Your task to perform on an android device: Empty the shopping cart on newegg. Add "duracell triple a" to the cart on newegg Image 0: 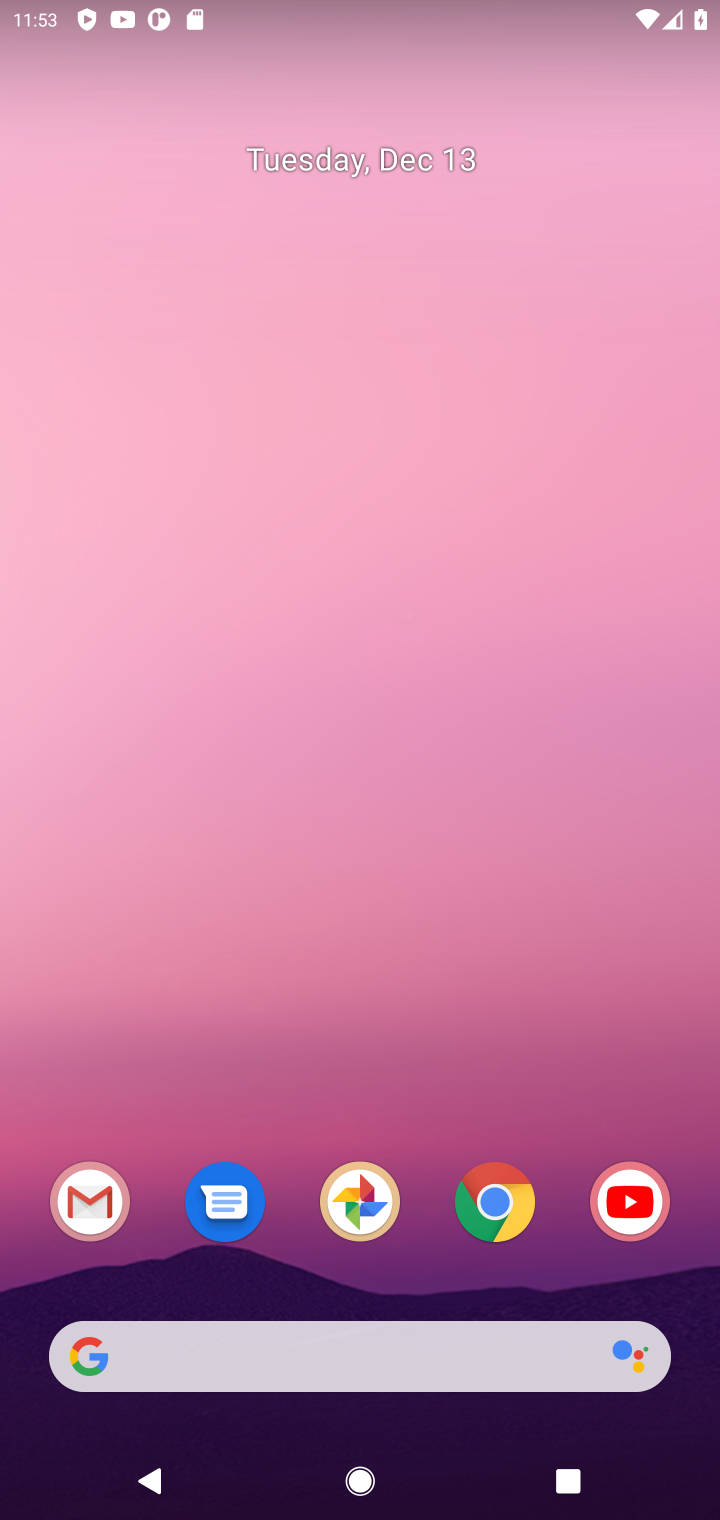
Step 0: click (507, 1196)
Your task to perform on an android device: Empty the shopping cart on newegg. Add "duracell triple a" to the cart on newegg Image 1: 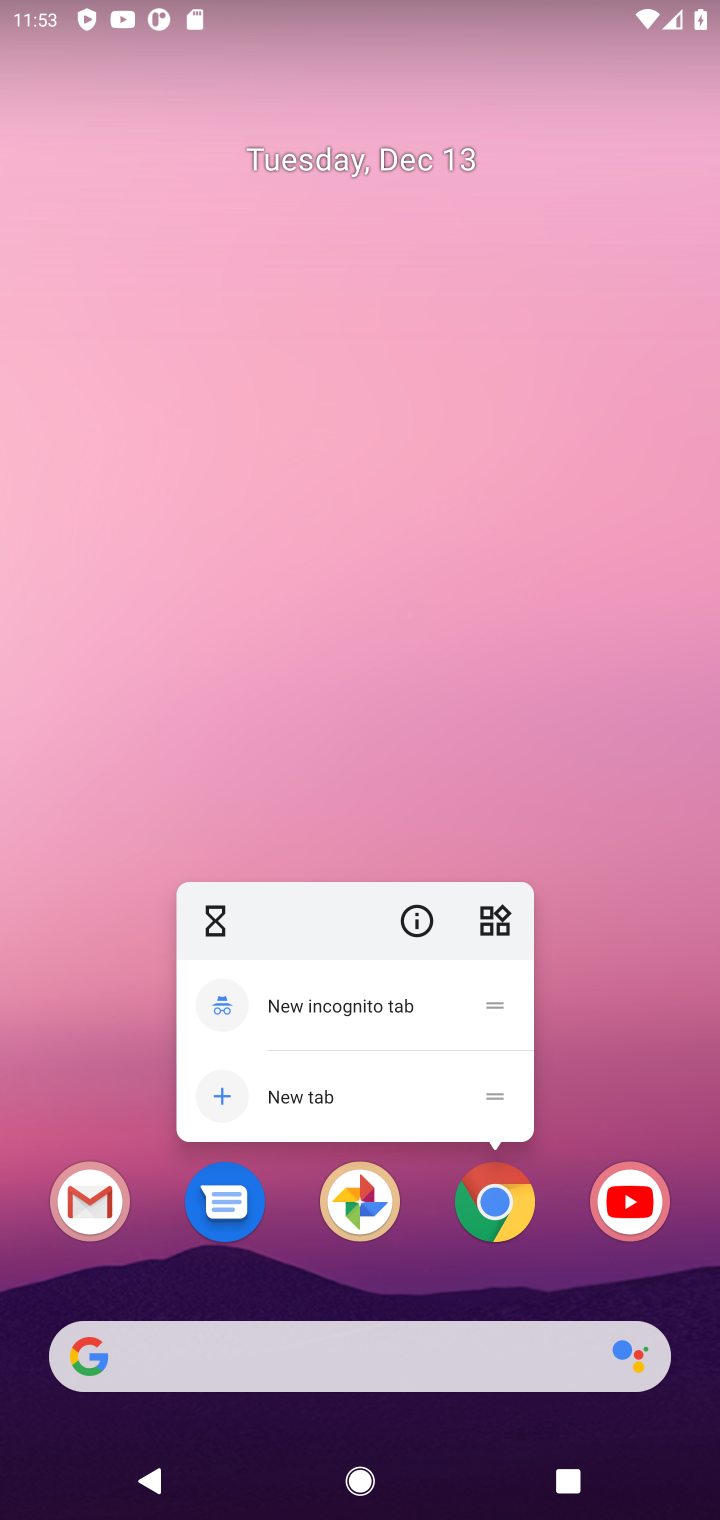
Step 1: click (492, 1193)
Your task to perform on an android device: Empty the shopping cart on newegg. Add "duracell triple a" to the cart on newegg Image 2: 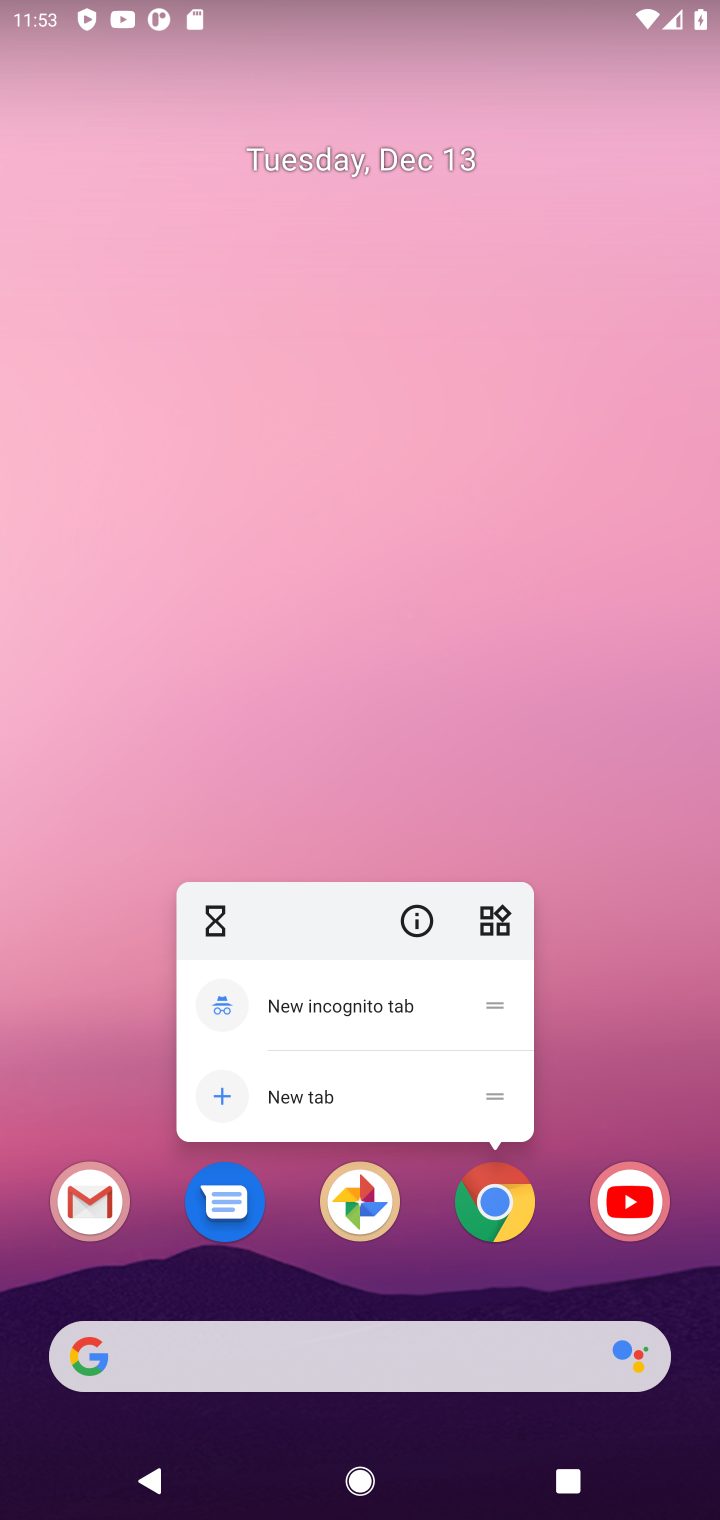
Step 2: click (492, 1193)
Your task to perform on an android device: Empty the shopping cart on newegg. Add "duracell triple a" to the cart on newegg Image 3: 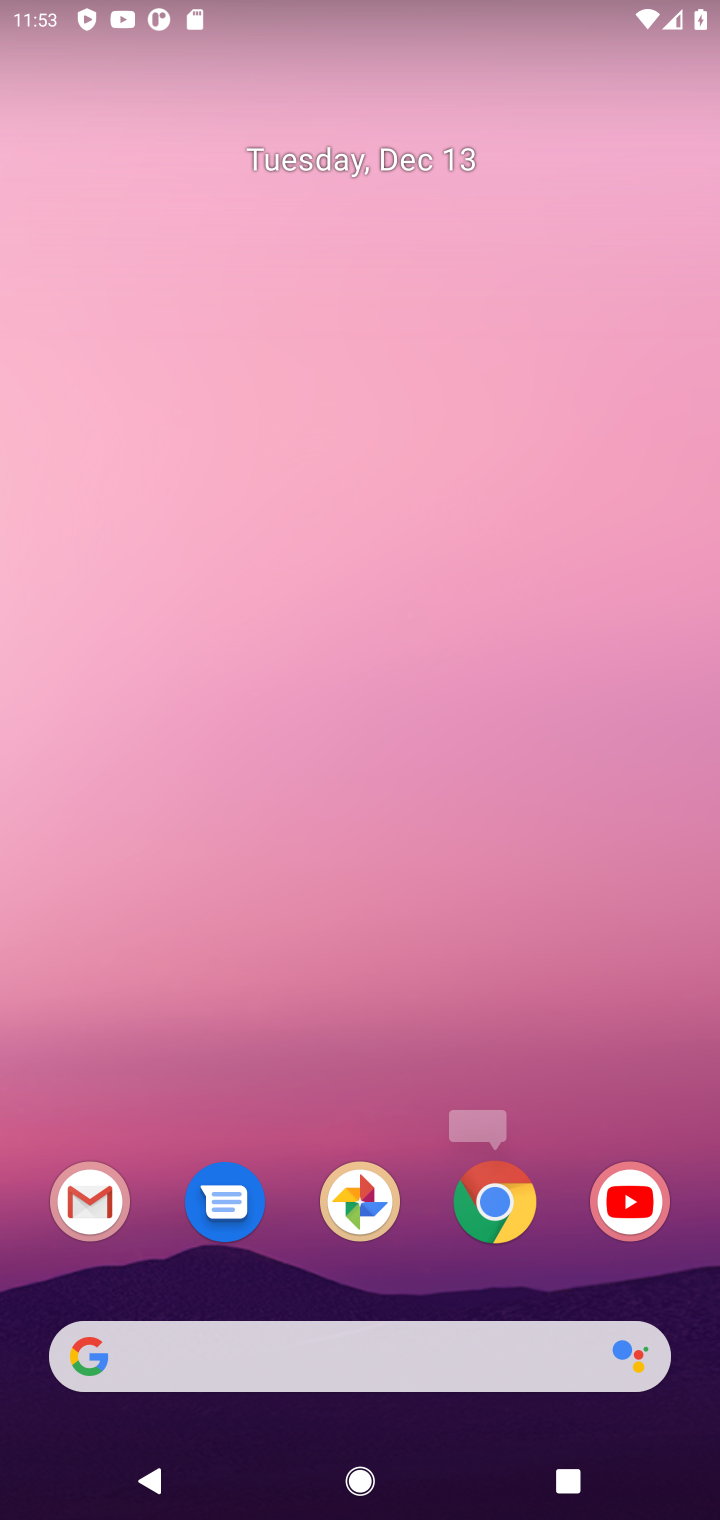
Step 3: click (492, 1193)
Your task to perform on an android device: Empty the shopping cart on newegg. Add "duracell triple a" to the cart on newegg Image 4: 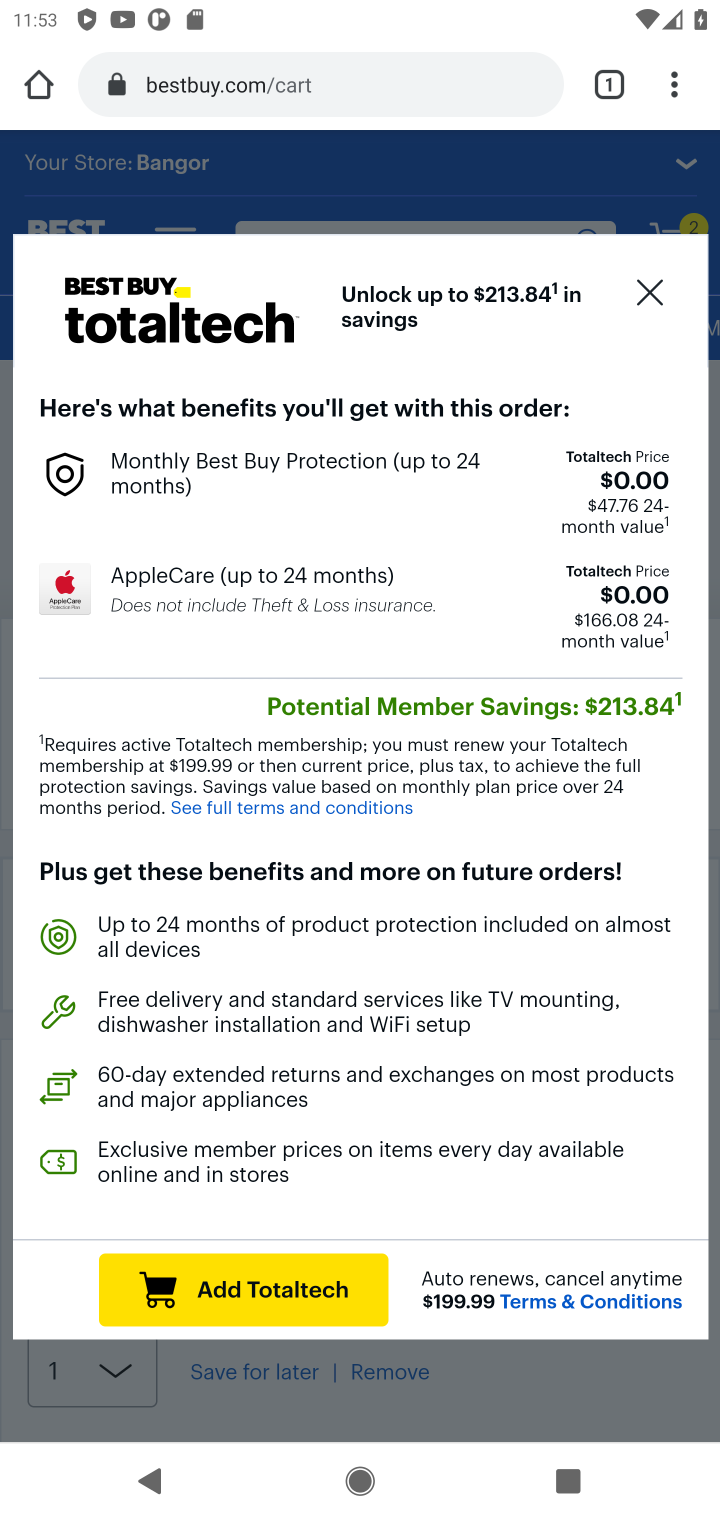
Step 4: click (289, 79)
Your task to perform on an android device: Empty the shopping cart on newegg. Add "duracell triple a" to the cart on newegg Image 5: 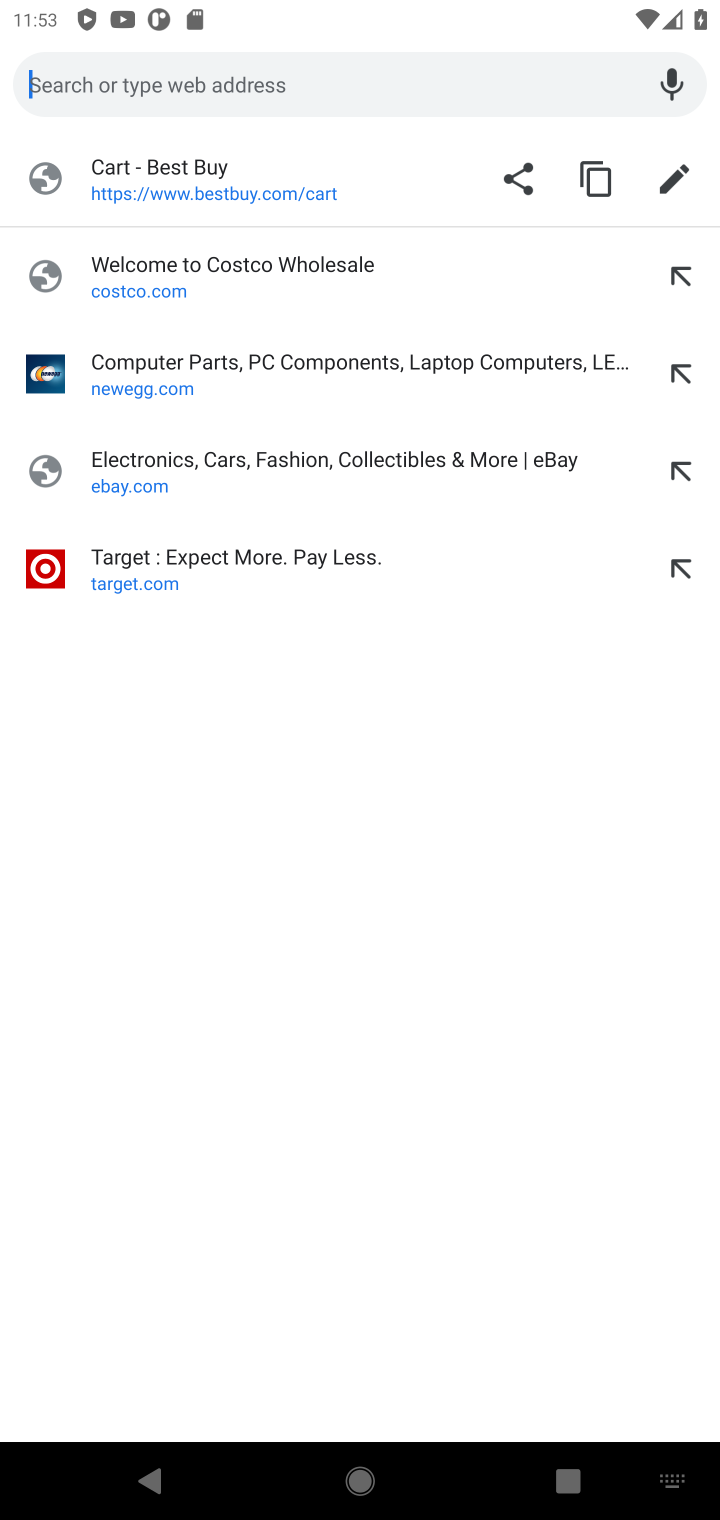
Step 5: click (208, 370)
Your task to perform on an android device: Empty the shopping cart on newegg. Add "duracell triple a" to the cart on newegg Image 6: 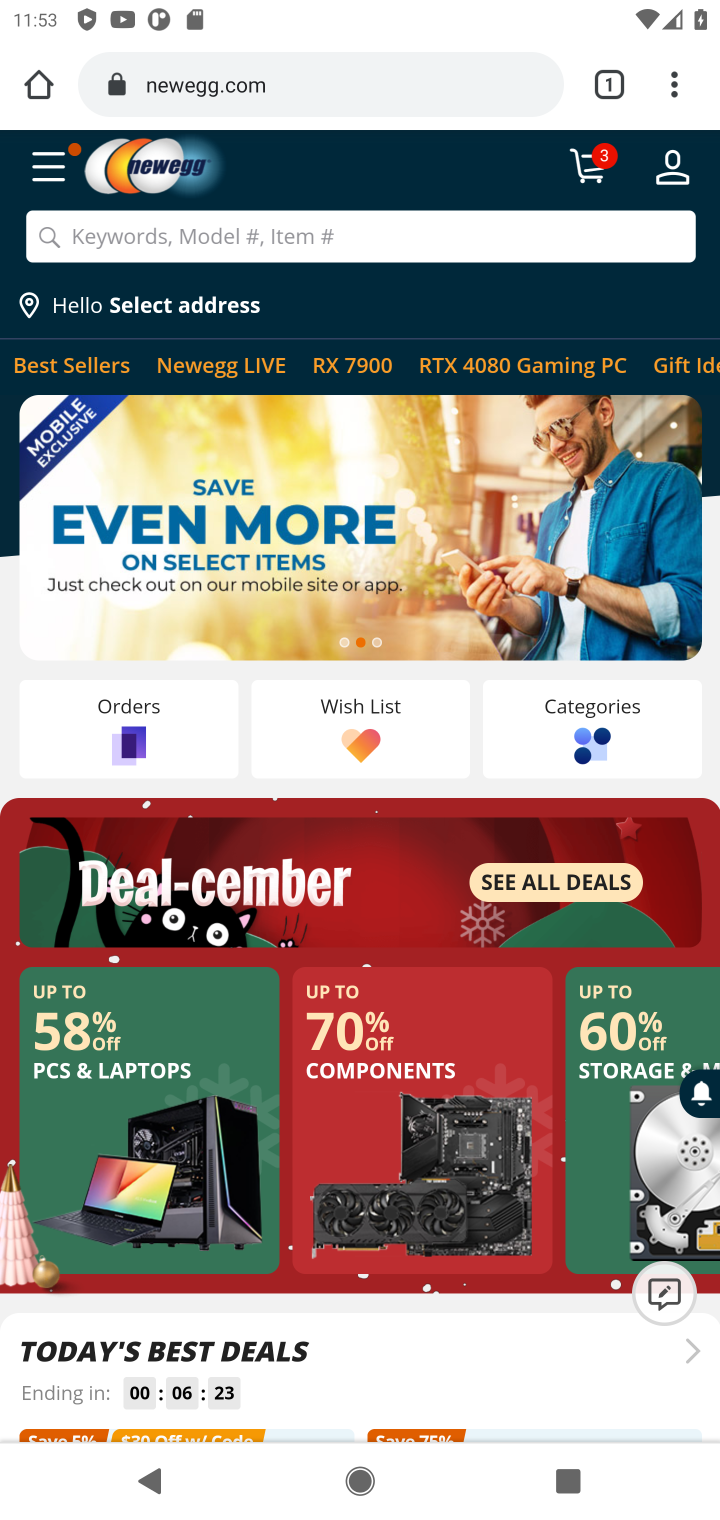
Step 6: click (588, 174)
Your task to perform on an android device: Empty the shopping cart on newegg. Add "duracell triple a" to the cart on newegg Image 7: 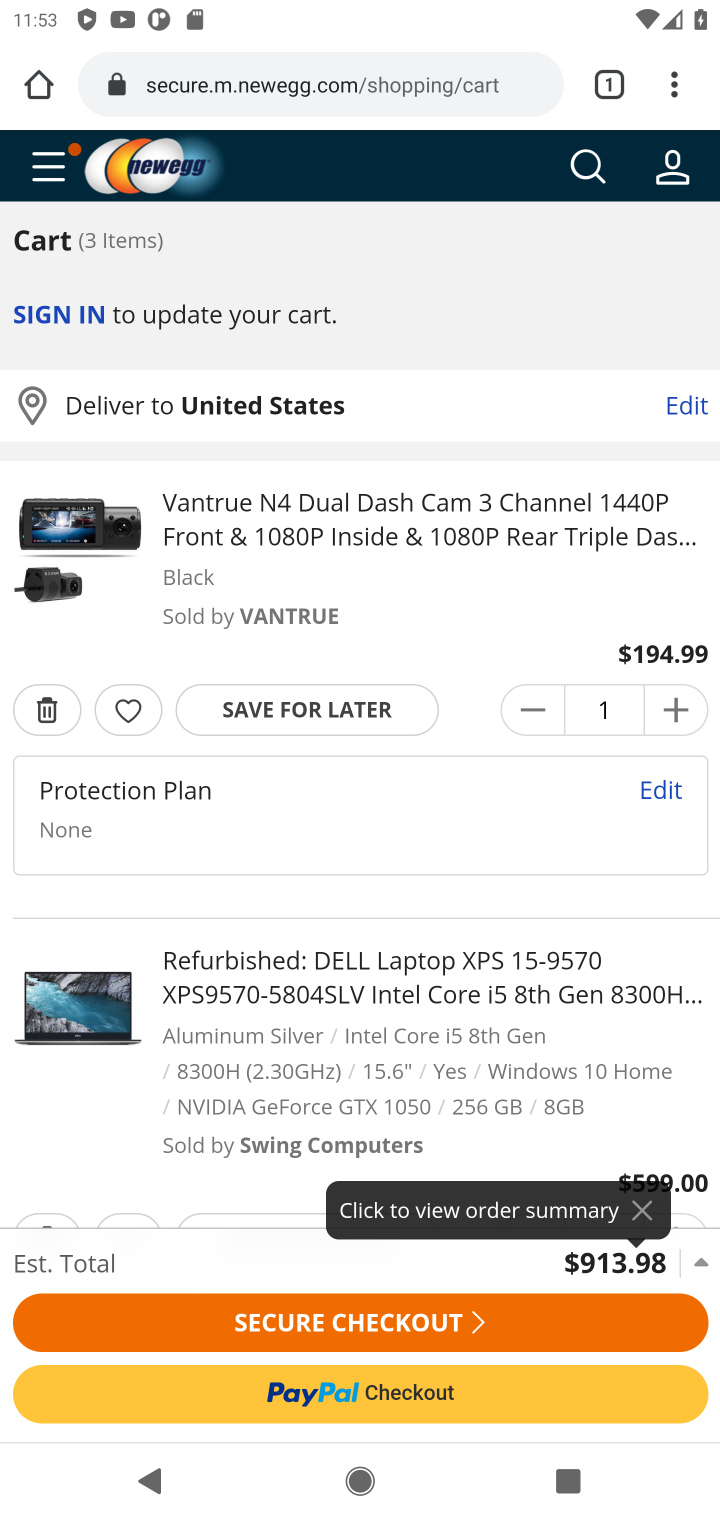
Step 7: click (46, 708)
Your task to perform on an android device: Empty the shopping cart on newegg. Add "duracell triple a" to the cart on newegg Image 8: 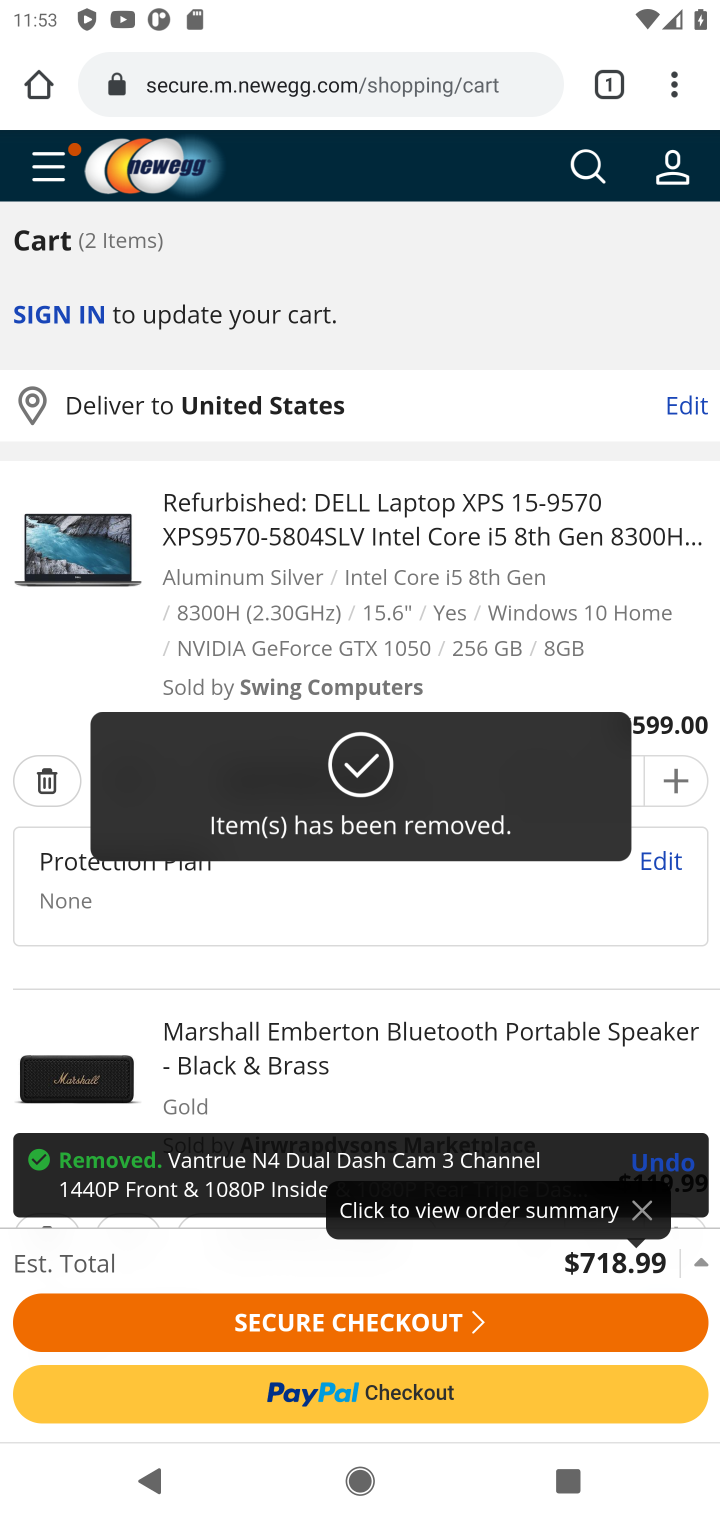
Step 8: click (40, 769)
Your task to perform on an android device: Empty the shopping cart on newegg. Add "duracell triple a" to the cart on newegg Image 9: 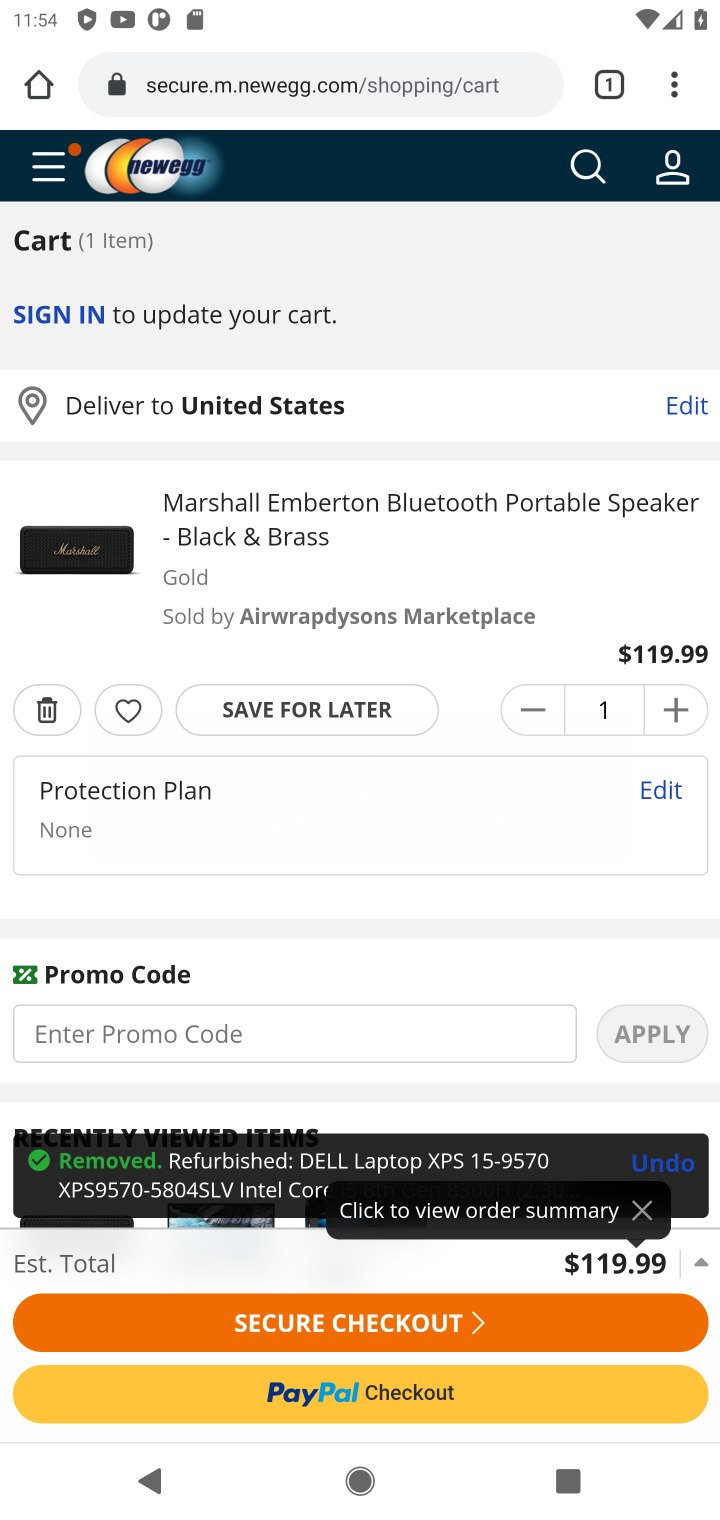
Step 9: click (47, 709)
Your task to perform on an android device: Empty the shopping cart on newegg. Add "duracell triple a" to the cart on newegg Image 10: 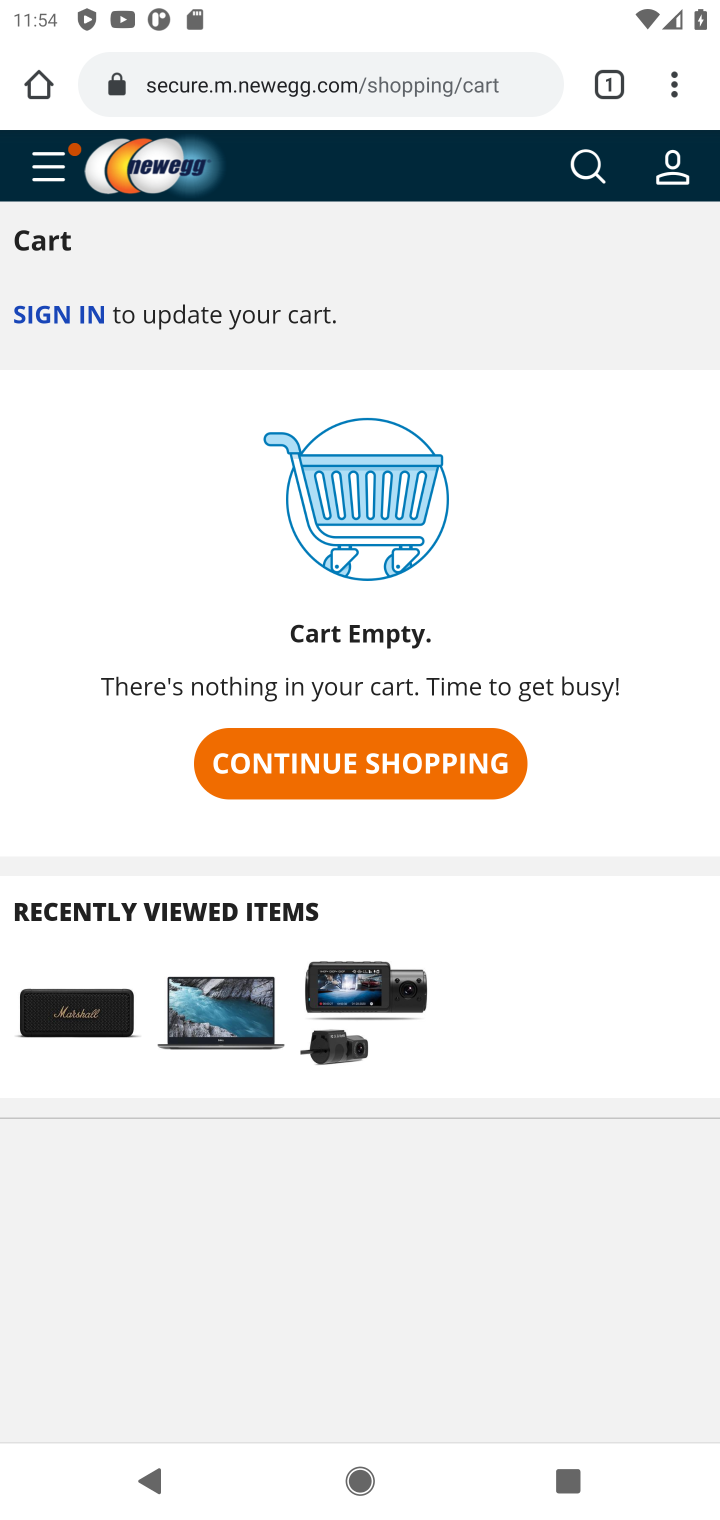
Step 10: click (588, 155)
Your task to perform on an android device: Empty the shopping cart on newegg. Add "duracell triple a" to the cart on newegg Image 11: 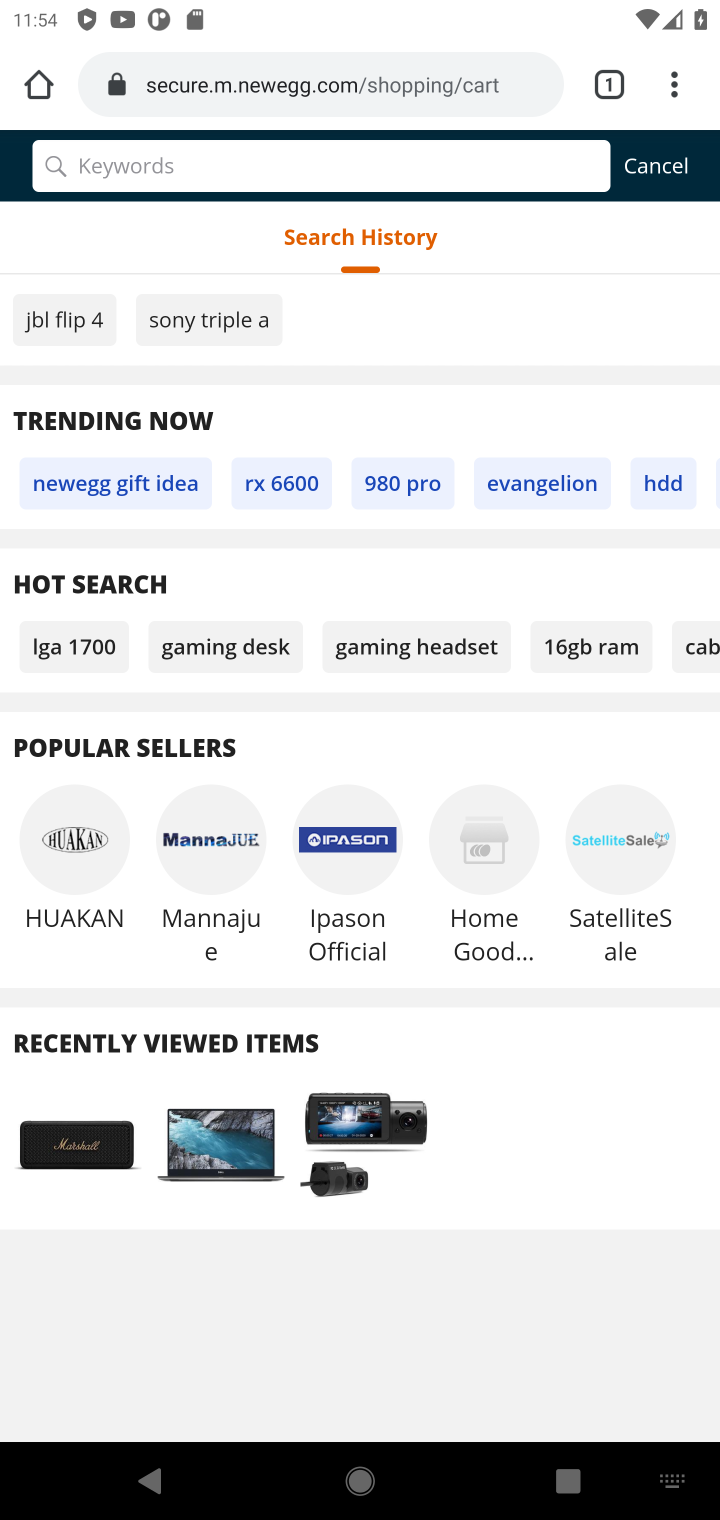
Step 11: click (410, 156)
Your task to perform on an android device: Empty the shopping cart on newegg. Add "duracell triple a" to the cart on newegg Image 12: 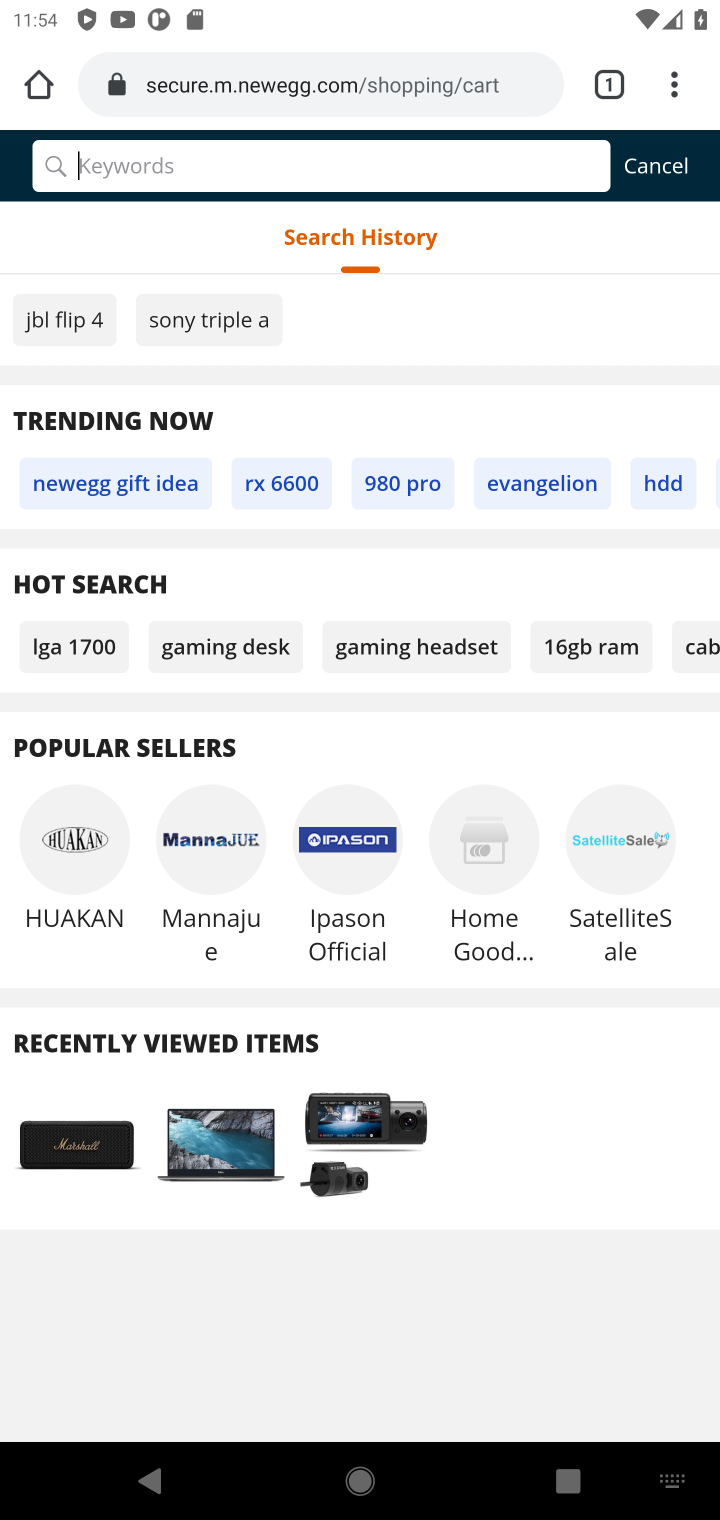
Step 12: type "duracell triple a"
Your task to perform on an android device: Empty the shopping cart on newegg. Add "duracell triple a" to the cart on newegg Image 13: 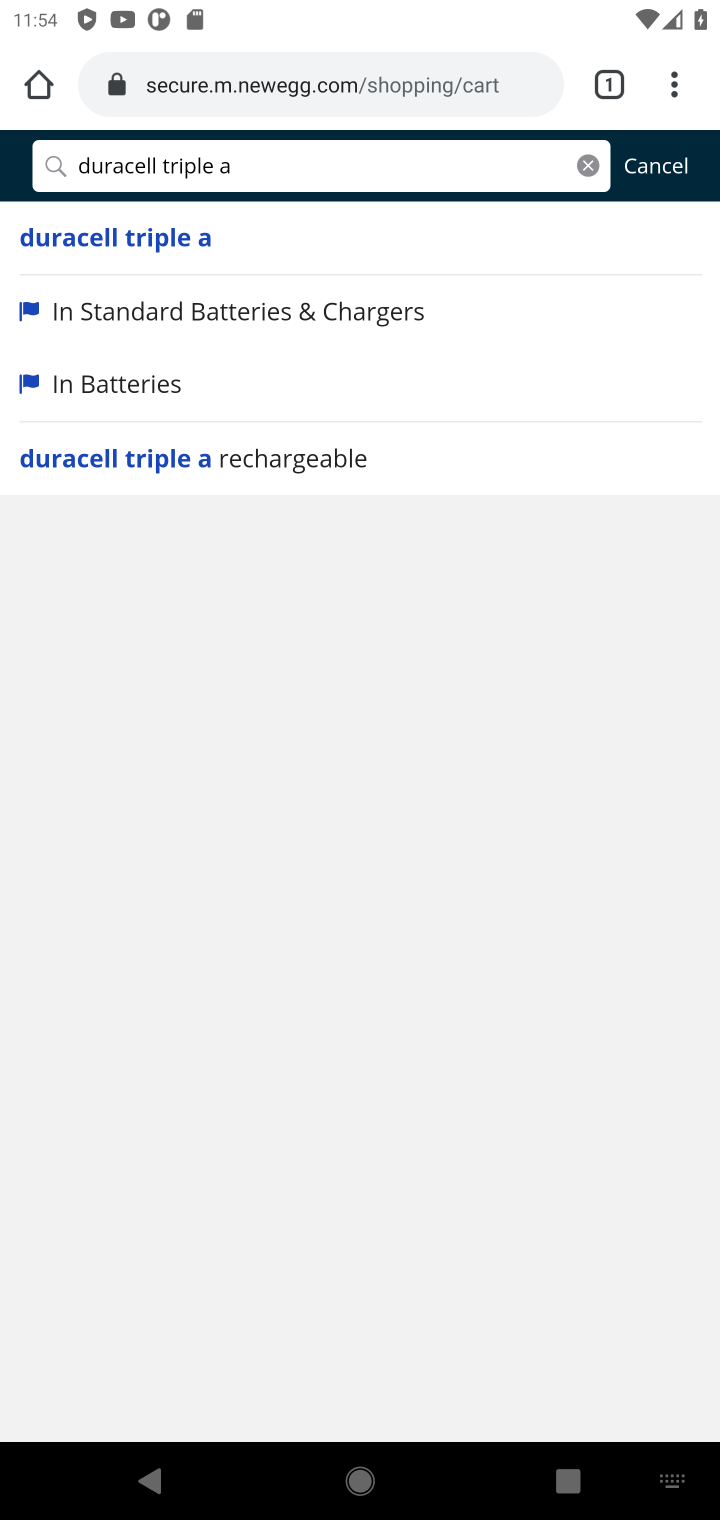
Step 13: click (176, 232)
Your task to perform on an android device: Empty the shopping cart on newegg. Add "duracell triple a" to the cart on newegg Image 14: 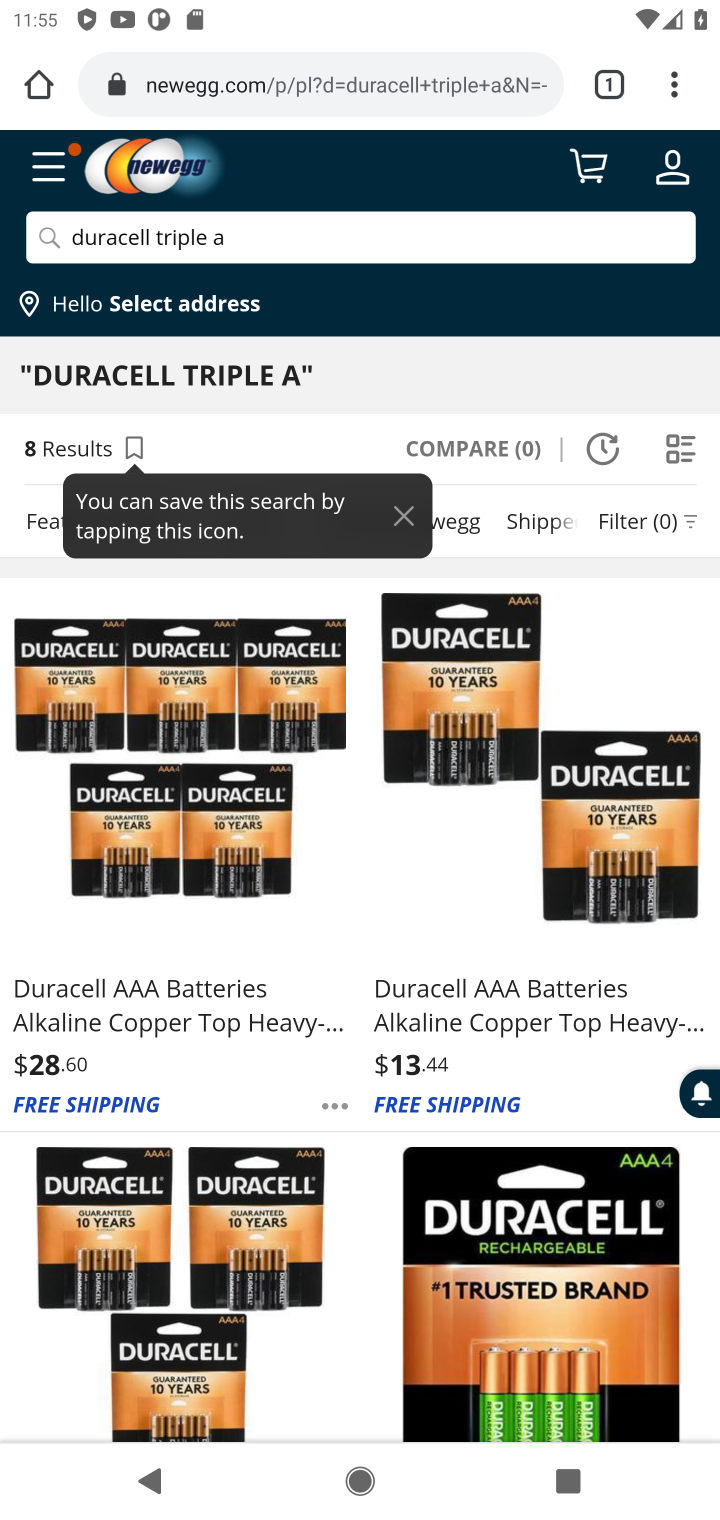
Step 14: click (235, 832)
Your task to perform on an android device: Empty the shopping cart on newegg. Add "duracell triple a" to the cart on newegg Image 15: 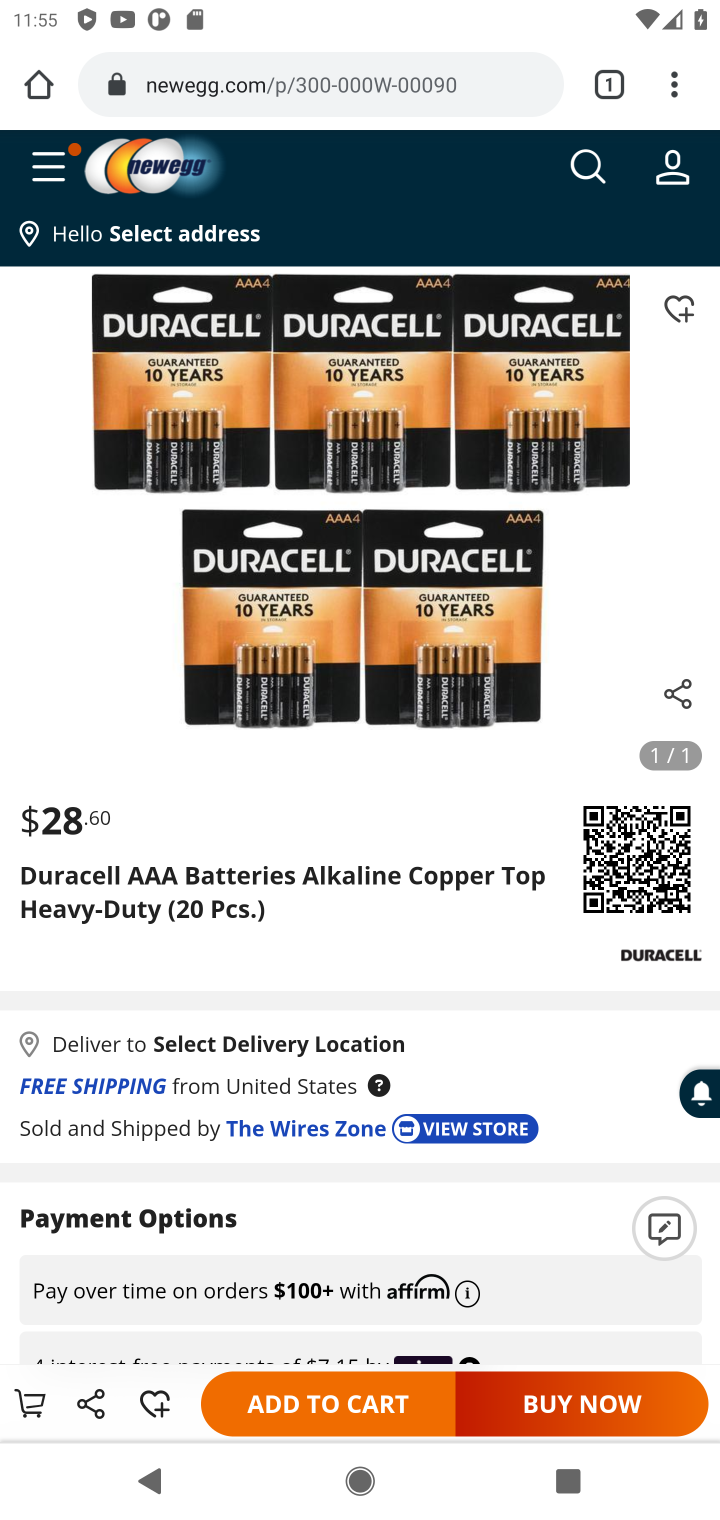
Step 15: click (305, 1405)
Your task to perform on an android device: Empty the shopping cart on newegg. Add "duracell triple a" to the cart on newegg Image 16: 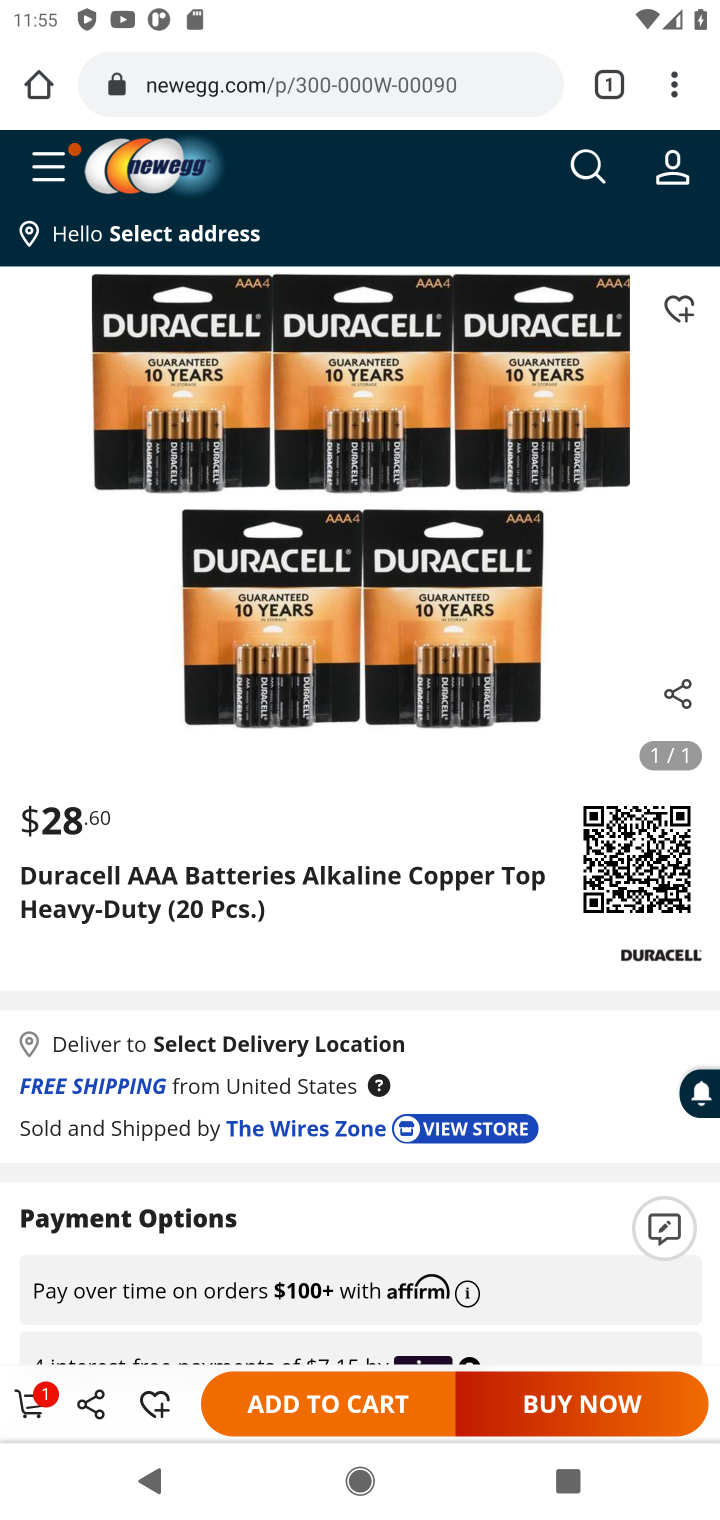
Step 16: task complete